Your task to perform on an android device: check the backup settings in the google photos Image 0: 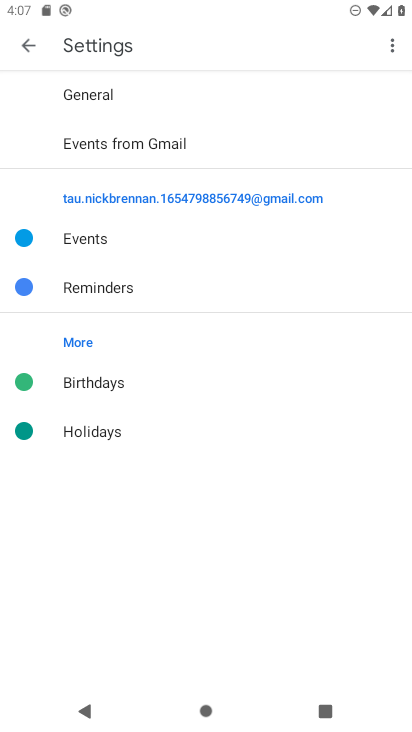
Step 0: press home button
Your task to perform on an android device: check the backup settings in the google photos Image 1: 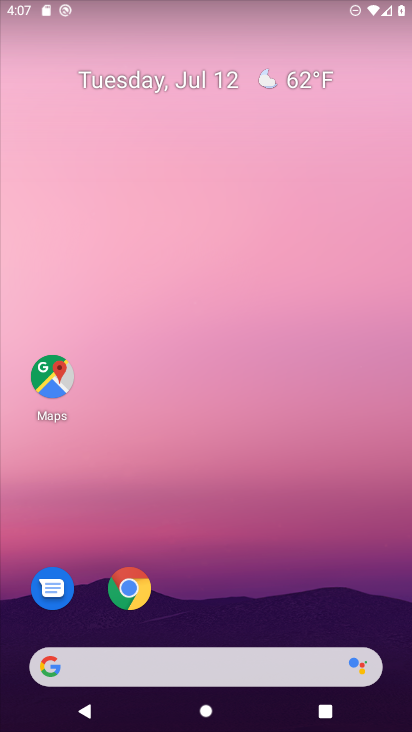
Step 1: drag from (195, 646) to (322, 6)
Your task to perform on an android device: check the backup settings in the google photos Image 2: 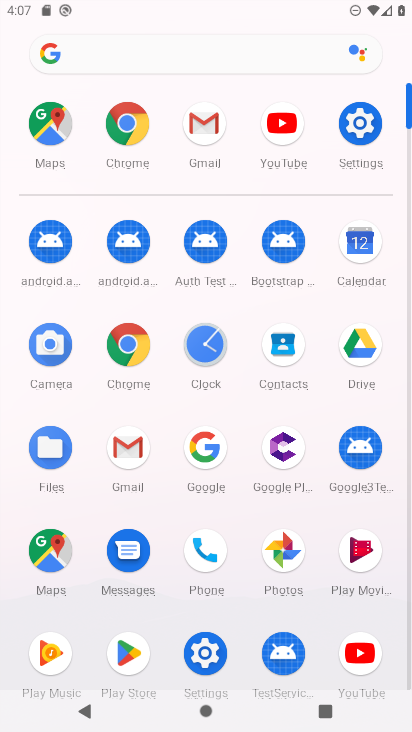
Step 2: click (295, 567)
Your task to perform on an android device: check the backup settings in the google photos Image 3: 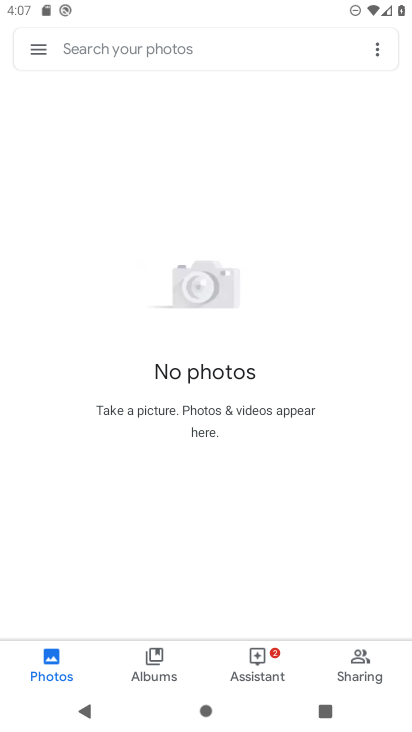
Step 3: click (41, 52)
Your task to perform on an android device: check the backup settings in the google photos Image 4: 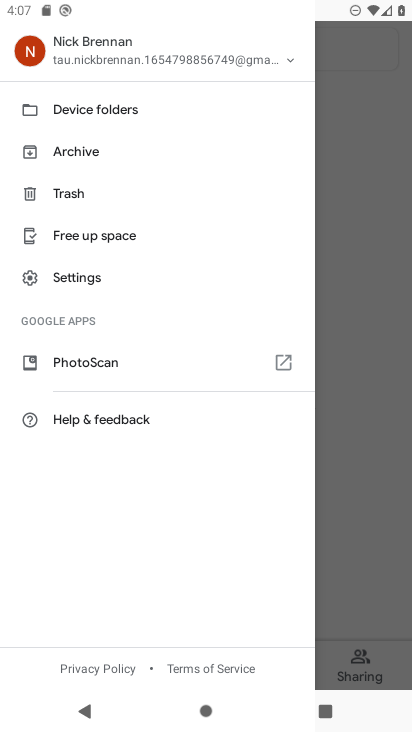
Step 4: click (92, 280)
Your task to perform on an android device: check the backup settings in the google photos Image 5: 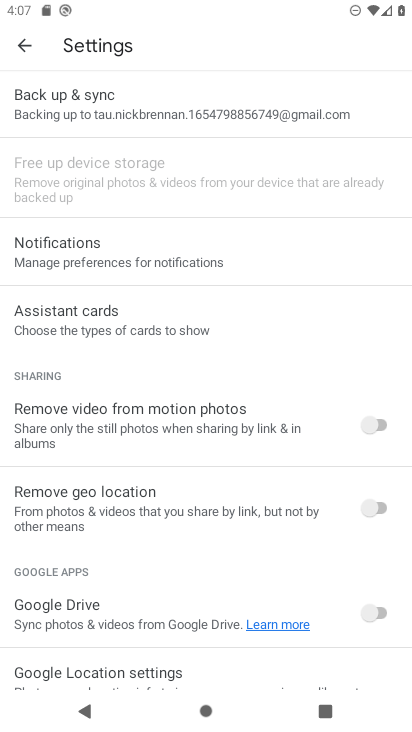
Step 5: click (142, 117)
Your task to perform on an android device: check the backup settings in the google photos Image 6: 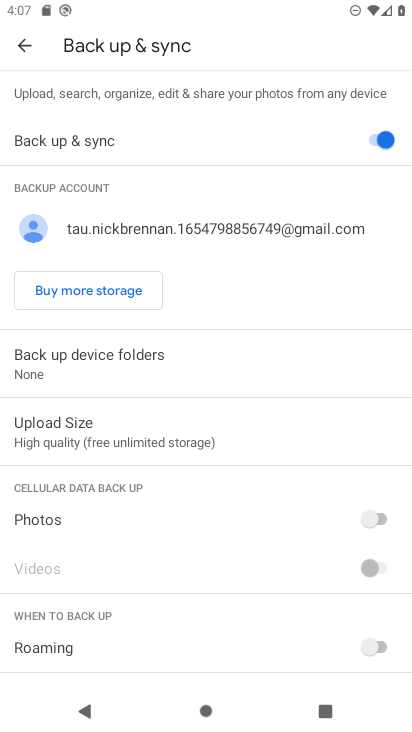
Step 6: task complete